Your task to perform on an android device: turn off priority inbox in the gmail app Image 0: 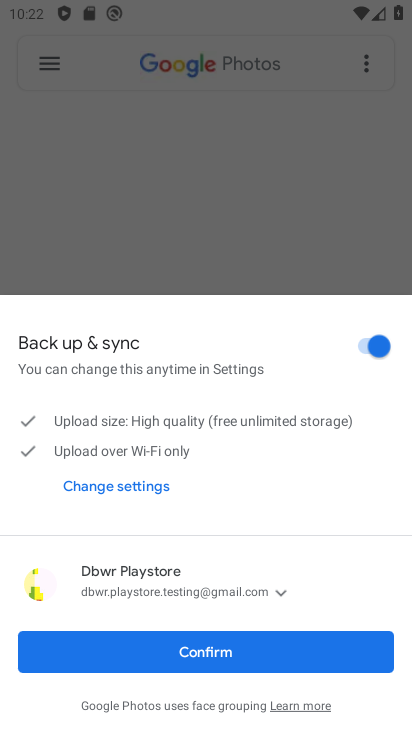
Step 0: press home button
Your task to perform on an android device: turn off priority inbox in the gmail app Image 1: 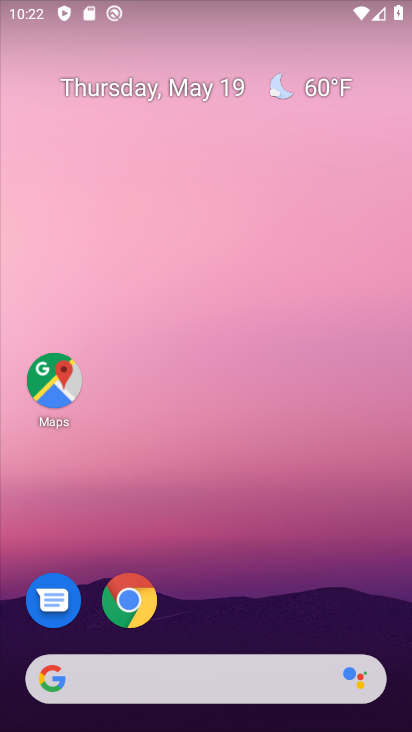
Step 1: drag from (356, 621) to (356, 177)
Your task to perform on an android device: turn off priority inbox in the gmail app Image 2: 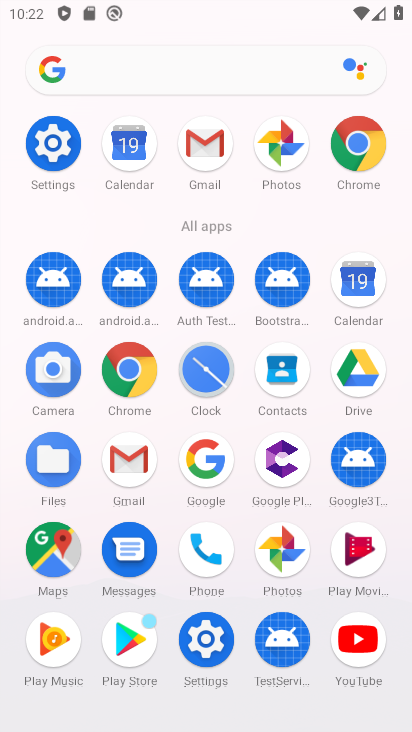
Step 2: click (143, 478)
Your task to perform on an android device: turn off priority inbox in the gmail app Image 3: 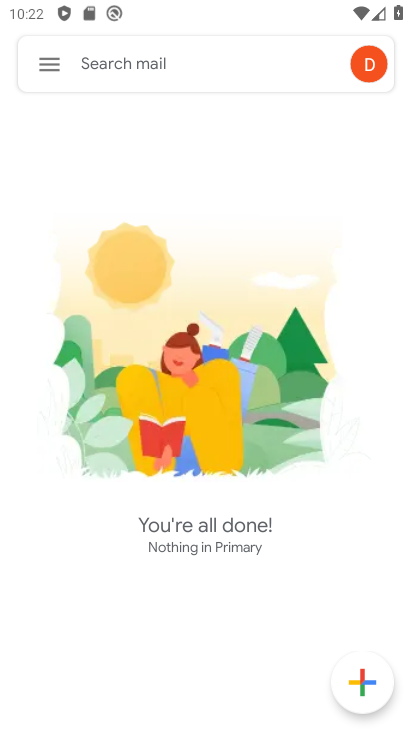
Step 3: click (56, 83)
Your task to perform on an android device: turn off priority inbox in the gmail app Image 4: 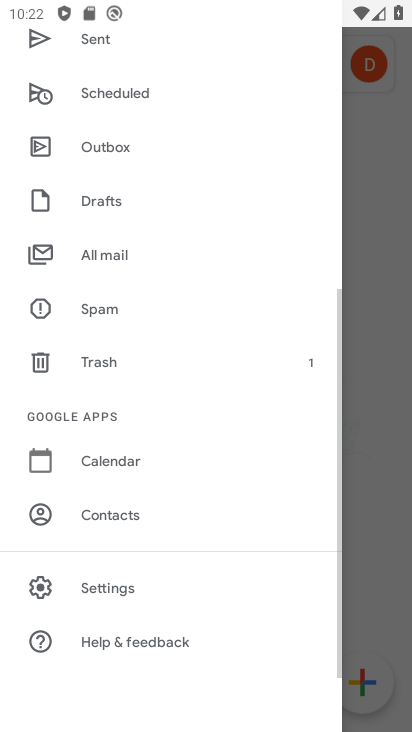
Step 4: drag from (231, 500) to (239, 352)
Your task to perform on an android device: turn off priority inbox in the gmail app Image 5: 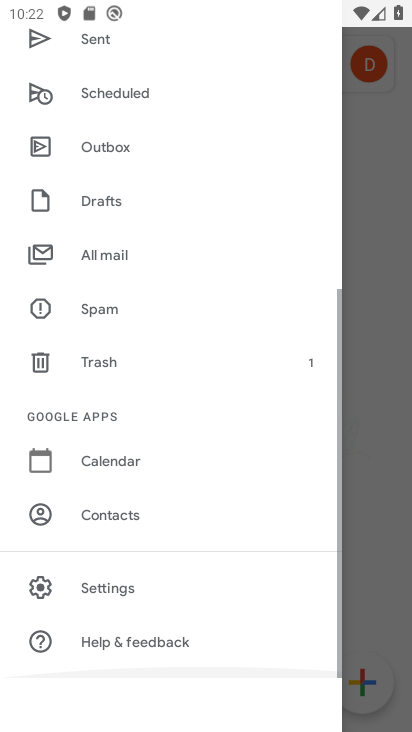
Step 5: drag from (245, 297) to (245, 402)
Your task to perform on an android device: turn off priority inbox in the gmail app Image 6: 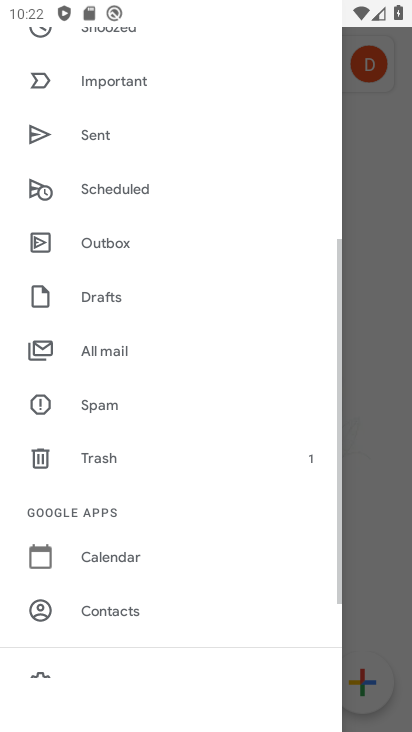
Step 6: drag from (245, 273) to (247, 391)
Your task to perform on an android device: turn off priority inbox in the gmail app Image 7: 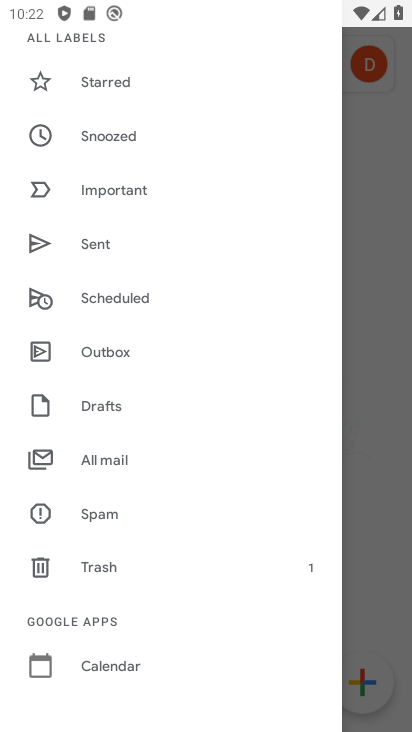
Step 7: drag from (227, 228) to (225, 342)
Your task to perform on an android device: turn off priority inbox in the gmail app Image 8: 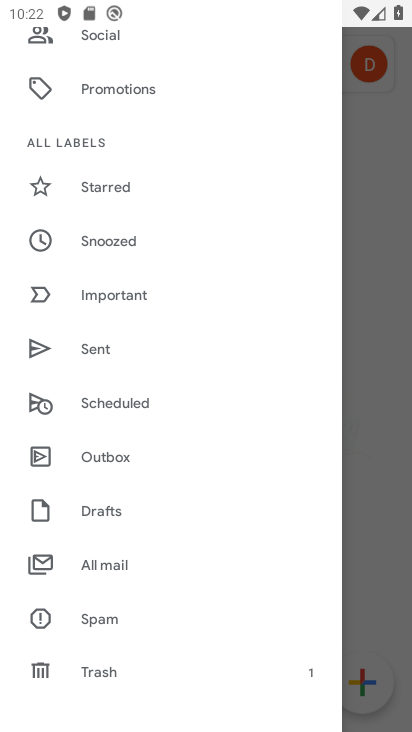
Step 8: drag from (238, 221) to (239, 325)
Your task to perform on an android device: turn off priority inbox in the gmail app Image 9: 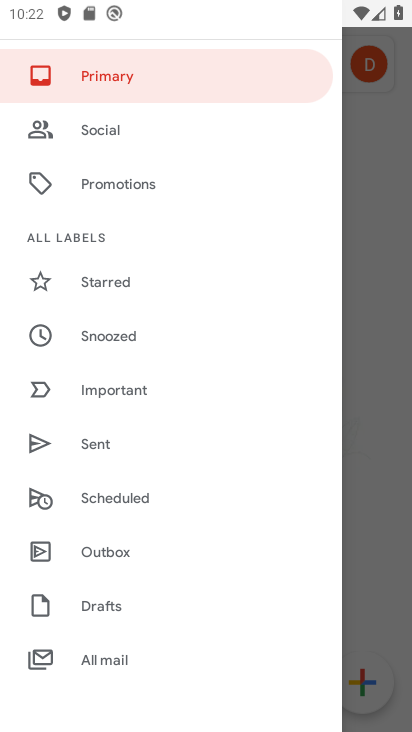
Step 9: drag from (235, 192) to (233, 344)
Your task to perform on an android device: turn off priority inbox in the gmail app Image 10: 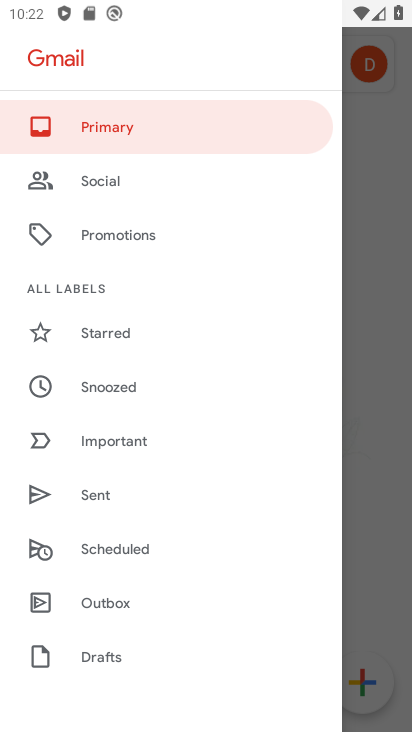
Step 10: drag from (229, 257) to (227, 355)
Your task to perform on an android device: turn off priority inbox in the gmail app Image 11: 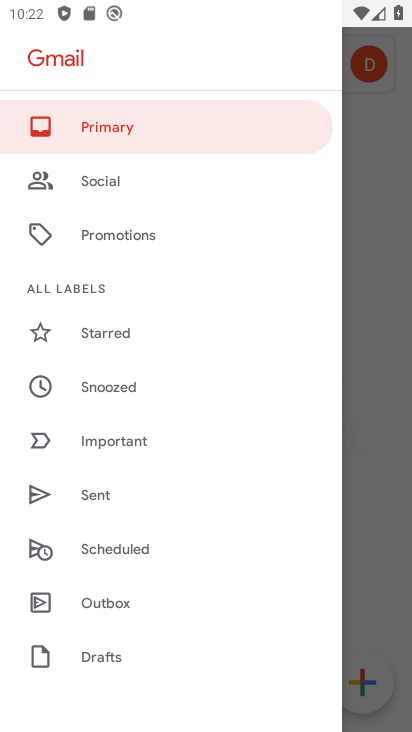
Step 11: drag from (223, 288) to (215, 393)
Your task to perform on an android device: turn off priority inbox in the gmail app Image 12: 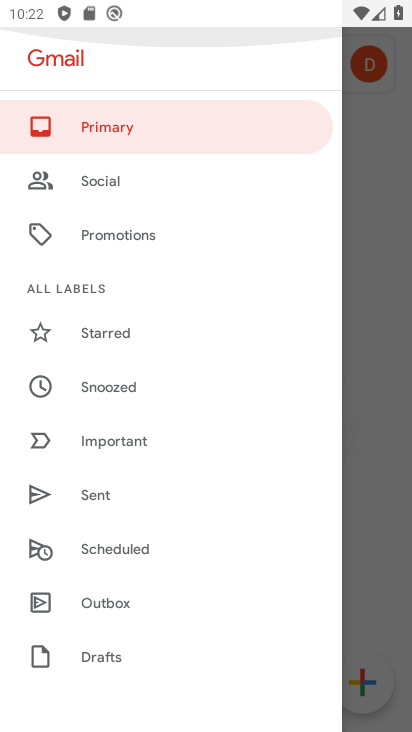
Step 12: drag from (227, 429) to (230, 330)
Your task to perform on an android device: turn off priority inbox in the gmail app Image 13: 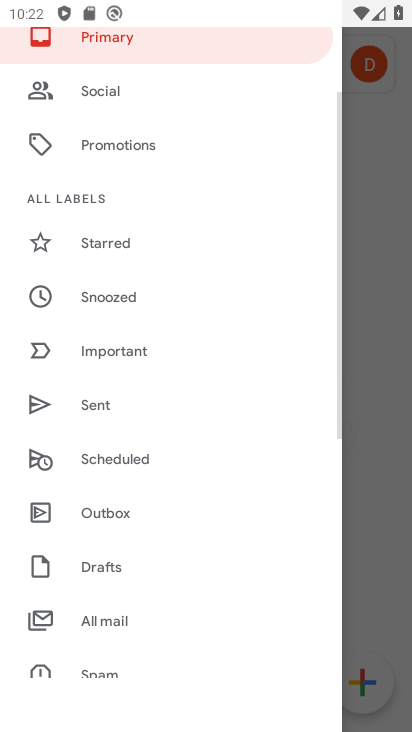
Step 13: drag from (233, 447) to (233, 362)
Your task to perform on an android device: turn off priority inbox in the gmail app Image 14: 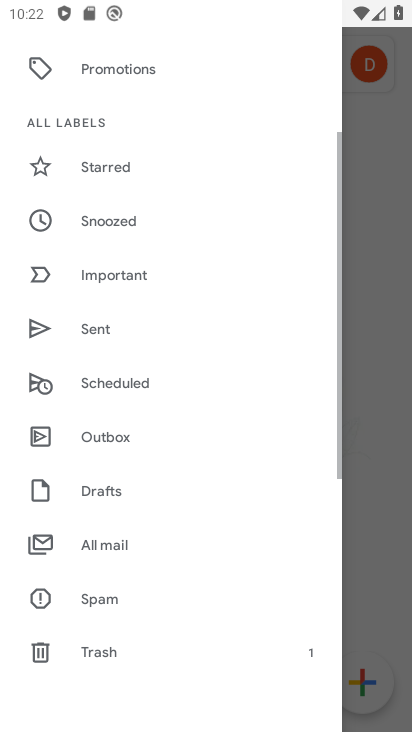
Step 14: drag from (245, 472) to (246, 391)
Your task to perform on an android device: turn off priority inbox in the gmail app Image 15: 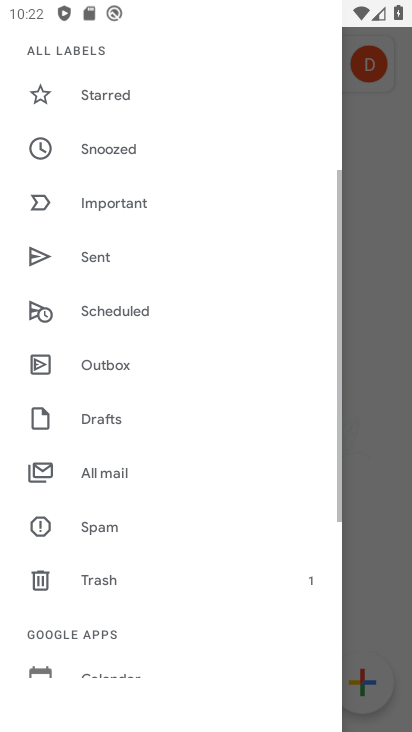
Step 15: drag from (259, 522) to (262, 412)
Your task to perform on an android device: turn off priority inbox in the gmail app Image 16: 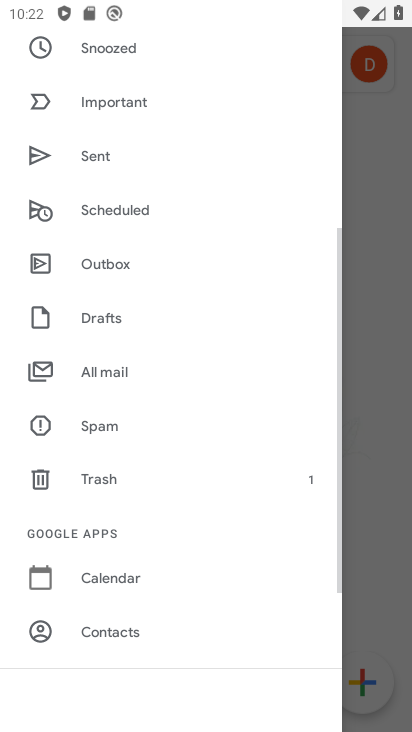
Step 16: drag from (243, 543) to (247, 460)
Your task to perform on an android device: turn off priority inbox in the gmail app Image 17: 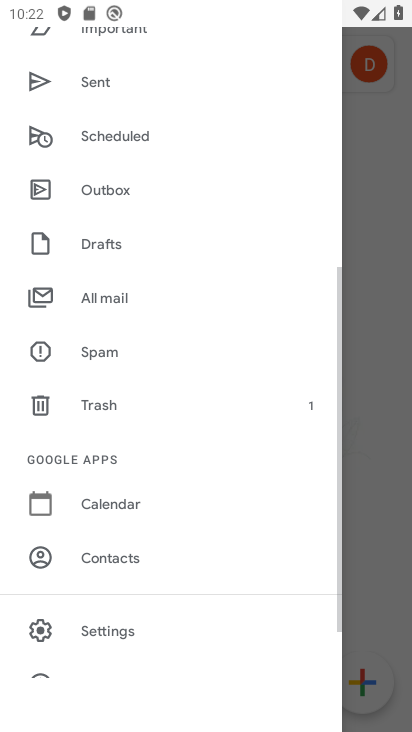
Step 17: drag from (235, 567) to (239, 470)
Your task to perform on an android device: turn off priority inbox in the gmail app Image 18: 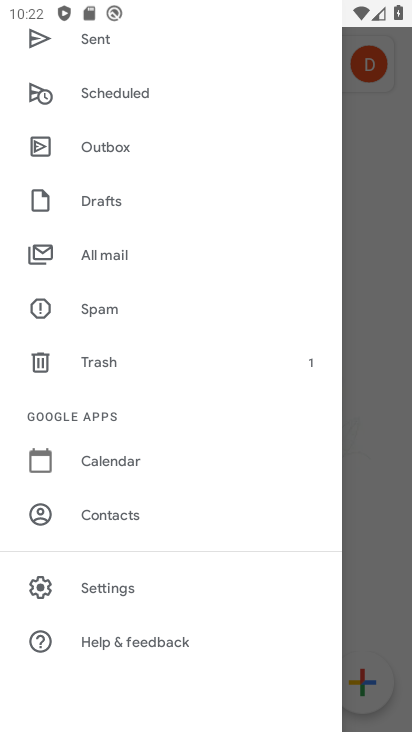
Step 18: click (140, 589)
Your task to perform on an android device: turn off priority inbox in the gmail app Image 19: 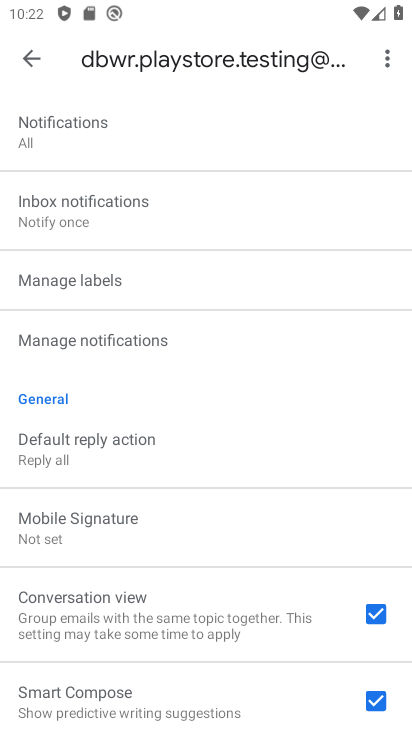
Step 19: task complete